Your task to perform on an android device: turn smart compose on in the gmail app Image 0: 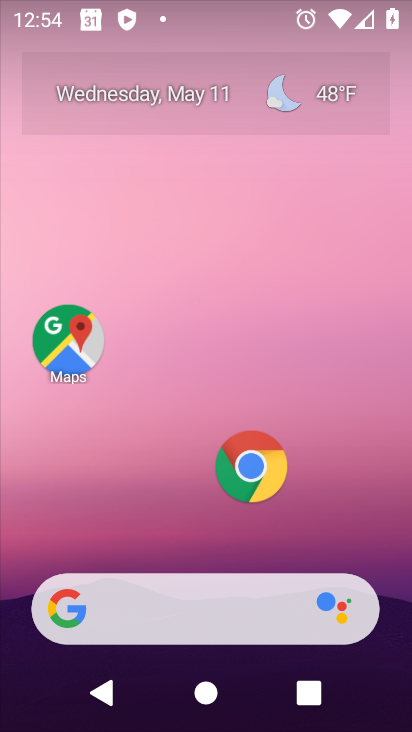
Step 0: drag from (175, 571) to (308, 46)
Your task to perform on an android device: turn smart compose on in the gmail app Image 1: 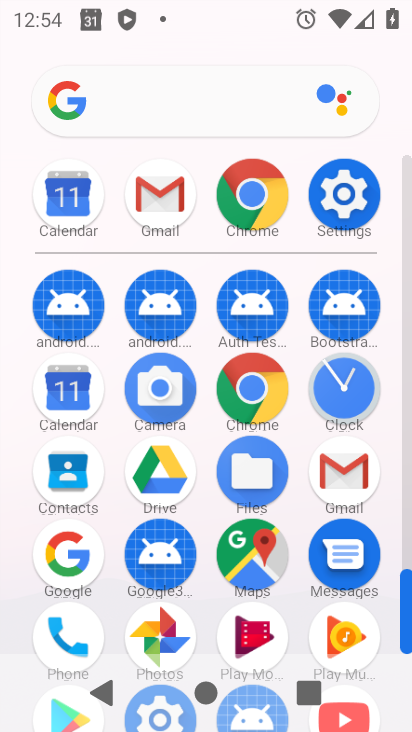
Step 1: click (162, 190)
Your task to perform on an android device: turn smart compose on in the gmail app Image 2: 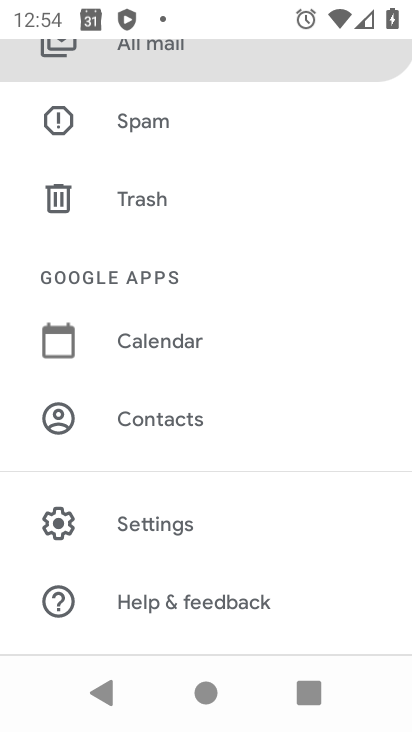
Step 2: drag from (205, 192) to (305, 72)
Your task to perform on an android device: turn smart compose on in the gmail app Image 3: 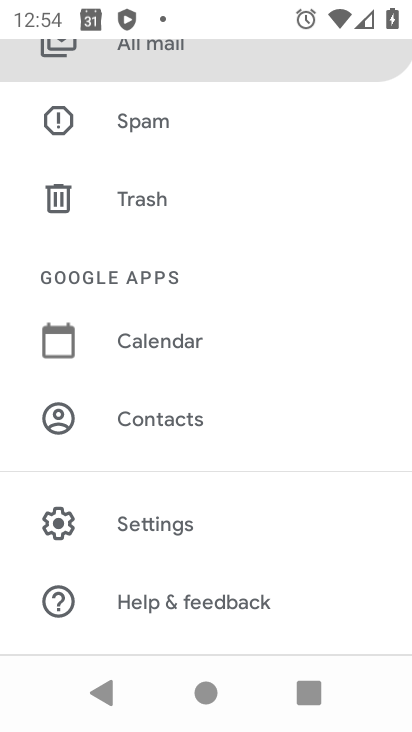
Step 3: click (168, 511)
Your task to perform on an android device: turn smart compose on in the gmail app Image 4: 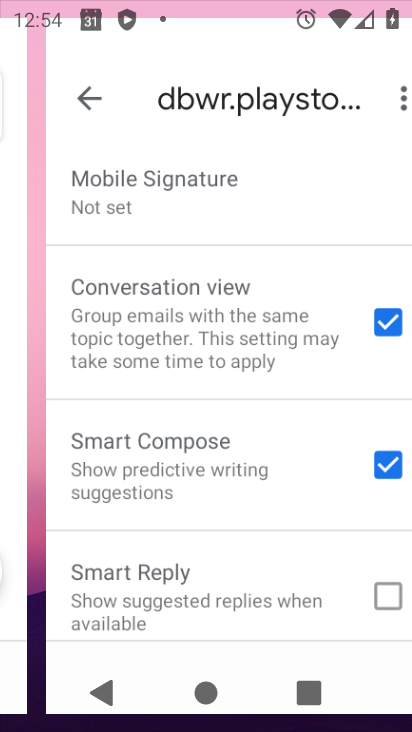
Step 4: task complete